Your task to perform on an android device: What is the news today? Image 0: 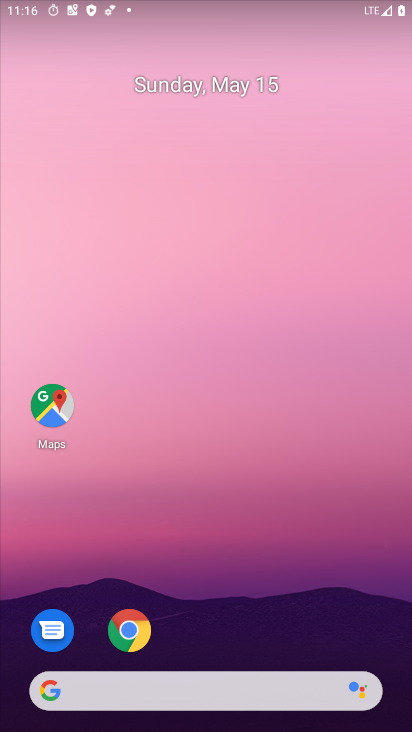
Step 0: click (170, 695)
Your task to perform on an android device: What is the news today? Image 1: 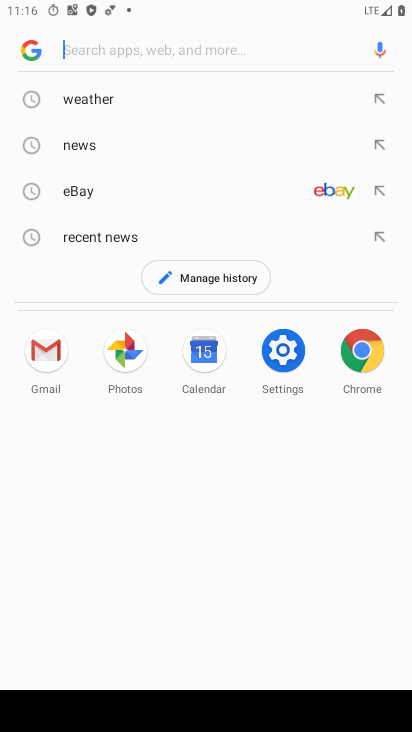
Step 1: click (78, 147)
Your task to perform on an android device: What is the news today? Image 2: 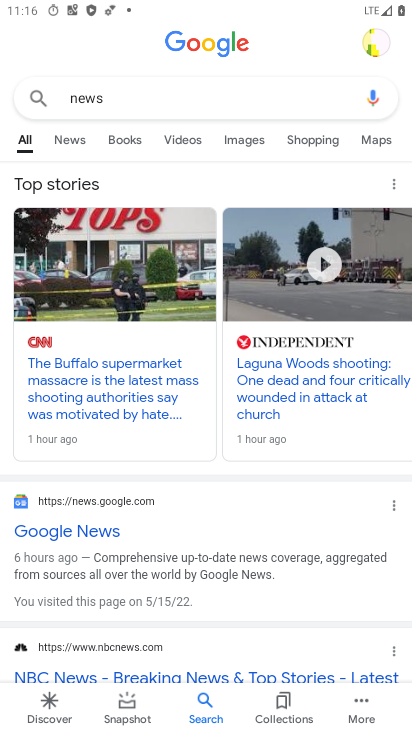
Step 2: task complete